Your task to perform on an android device: open the mobile data screen to see how much data has been used Image 0: 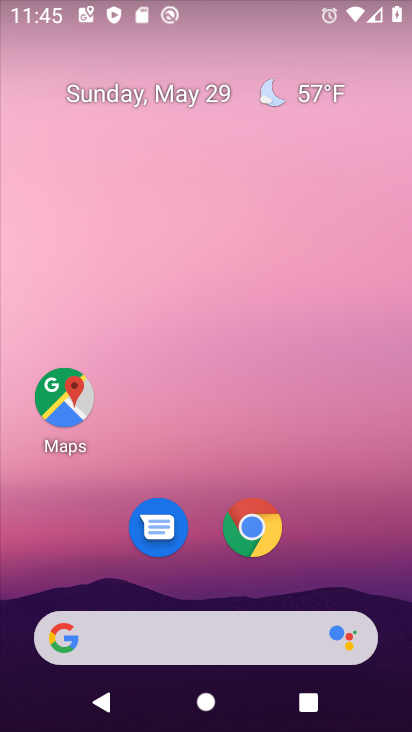
Step 0: click (216, 8)
Your task to perform on an android device: open the mobile data screen to see how much data has been used Image 1: 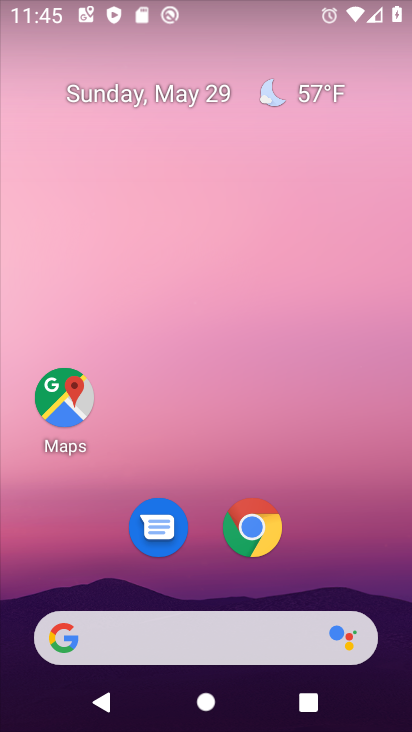
Step 1: drag from (216, 8) to (326, 440)
Your task to perform on an android device: open the mobile data screen to see how much data has been used Image 2: 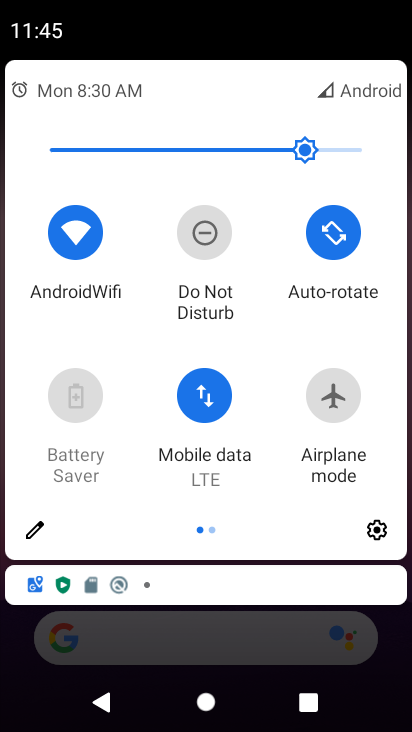
Step 2: click (210, 390)
Your task to perform on an android device: open the mobile data screen to see how much data has been used Image 3: 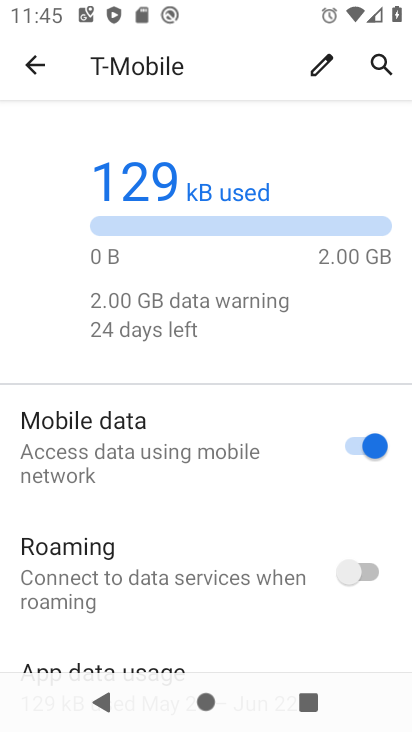
Step 3: task complete